Your task to perform on an android device: move an email to a new category in the gmail app Image 0: 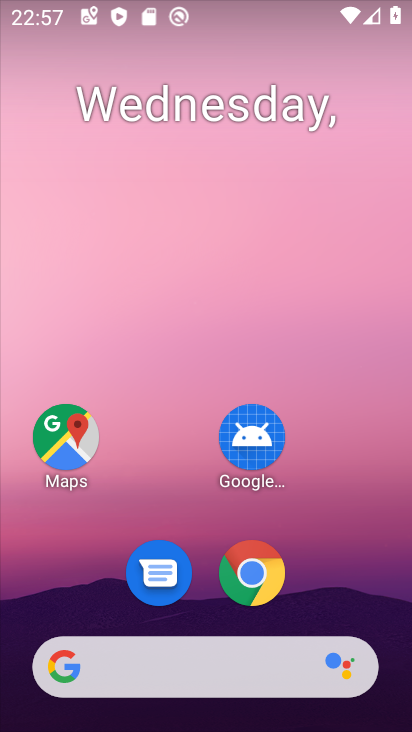
Step 0: drag from (351, 566) to (286, 16)
Your task to perform on an android device: move an email to a new category in the gmail app Image 1: 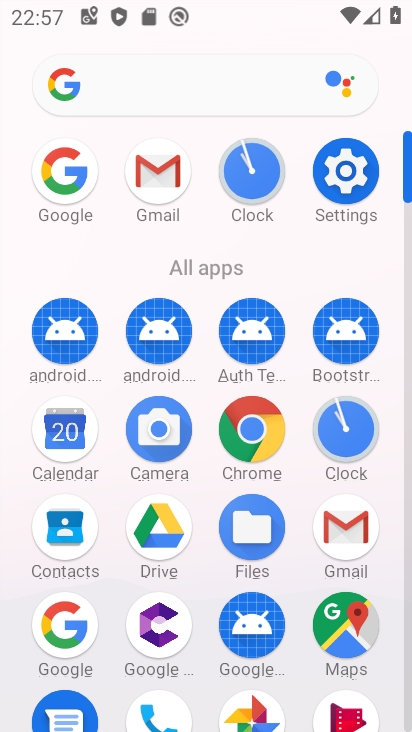
Step 1: click (157, 168)
Your task to perform on an android device: move an email to a new category in the gmail app Image 2: 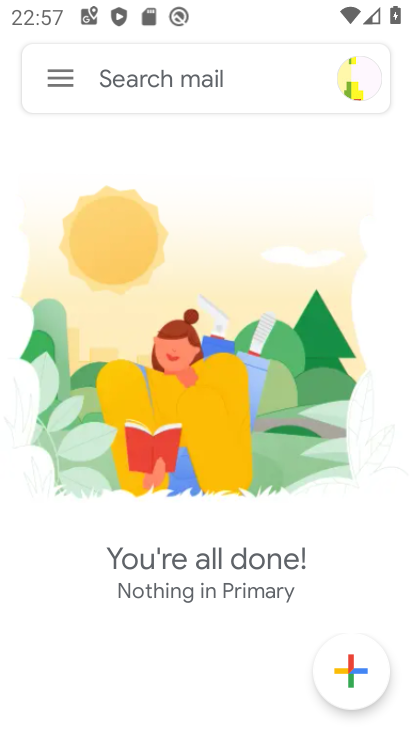
Step 2: click (63, 75)
Your task to perform on an android device: move an email to a new category in the gmail app Image 3: 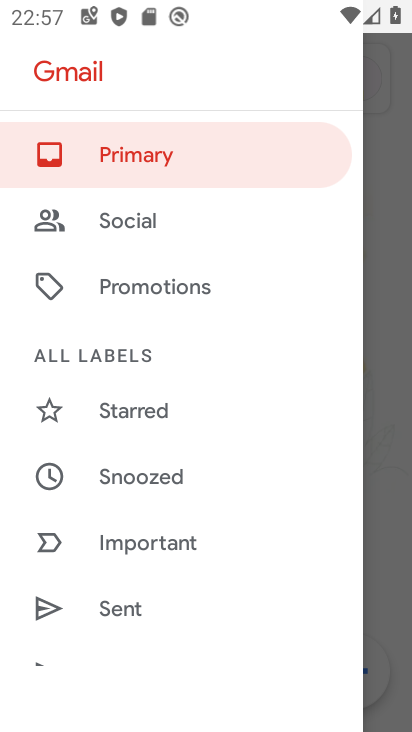
Step 3: drag from (202, 520) to (258, 421)
Your task to perform on an android device: move an email to a new category in the gmail app Image 4: 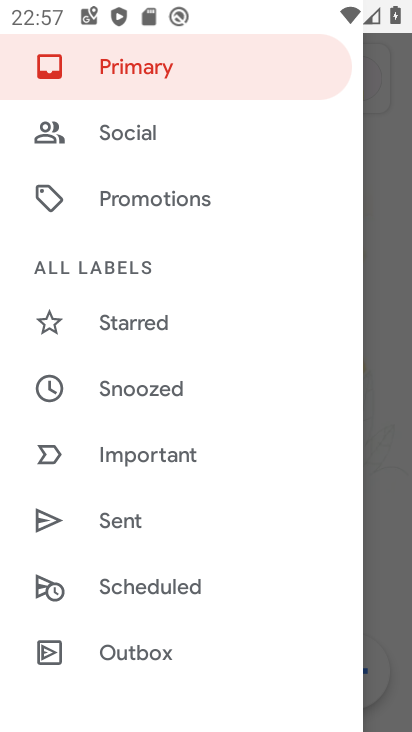
Step 4: drag from (203, 509) to (232, 401)
Your task to perform on an android device: move an email to a new category in the gmail app Image 5: 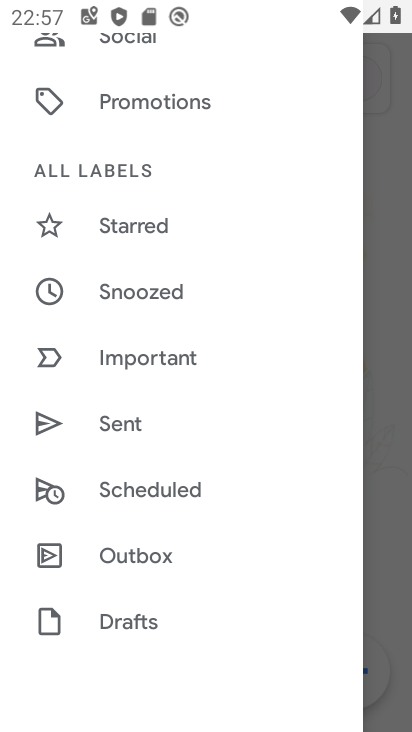
Step 5: drag from (204, 508) to (223, 439)
Your task to perform on an android device: move an email to a new category in the gmail app Image 6: 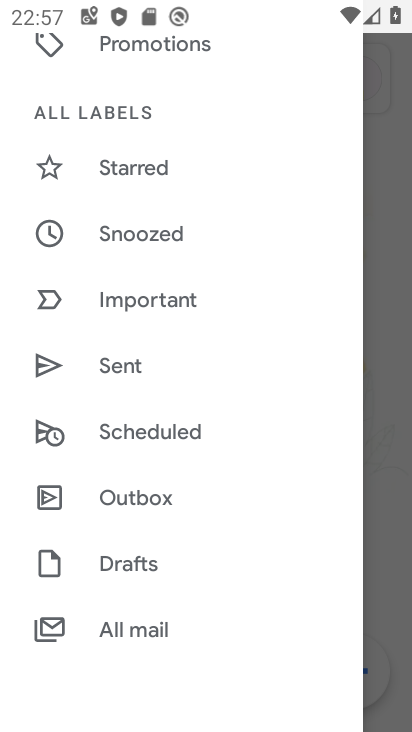
Step 6: drag from (188, 535) to (231, 455)
Your task to perform on an android device: move an email to a new category in the gmail app Image 7: 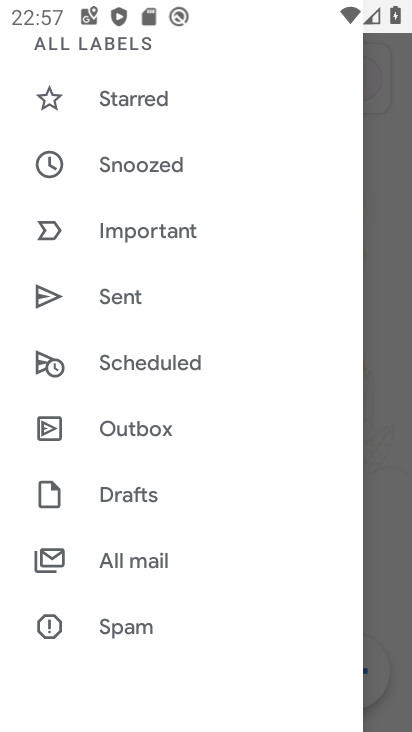
Step 7: click (140, 560)
Your task to perform on an android device: move an email to a new category in the gmail app Image 8: 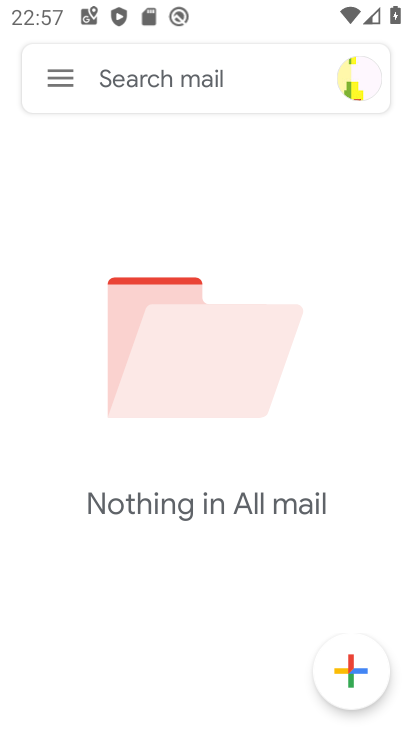
Step 8: task complete